Your task to perform on an android device: empty trash in the gmail app Image 0: 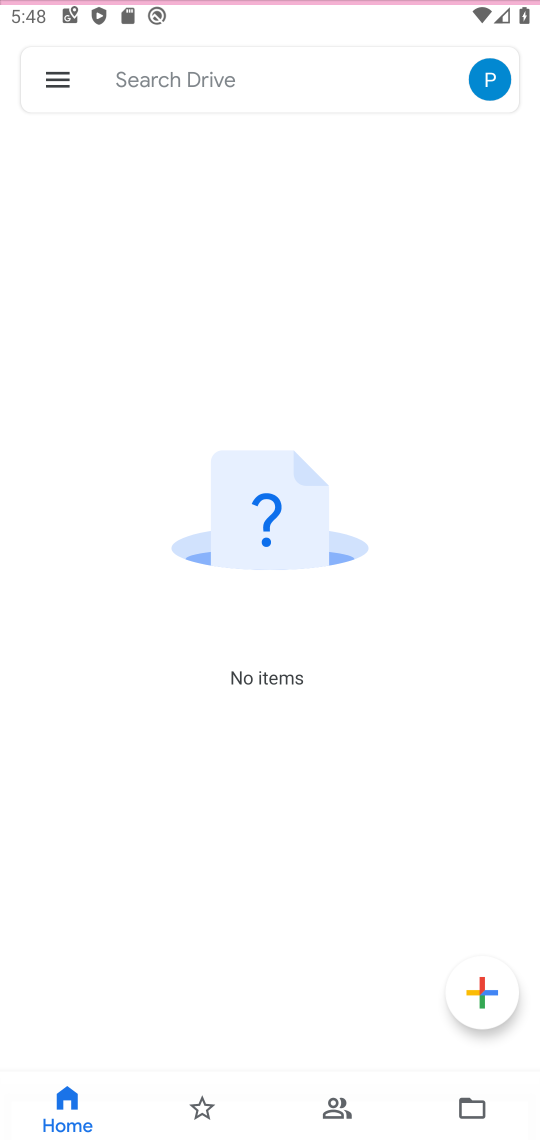
Step 0: press home button
Your task to perform on an android device: empty trash in the gmail app Image 1: 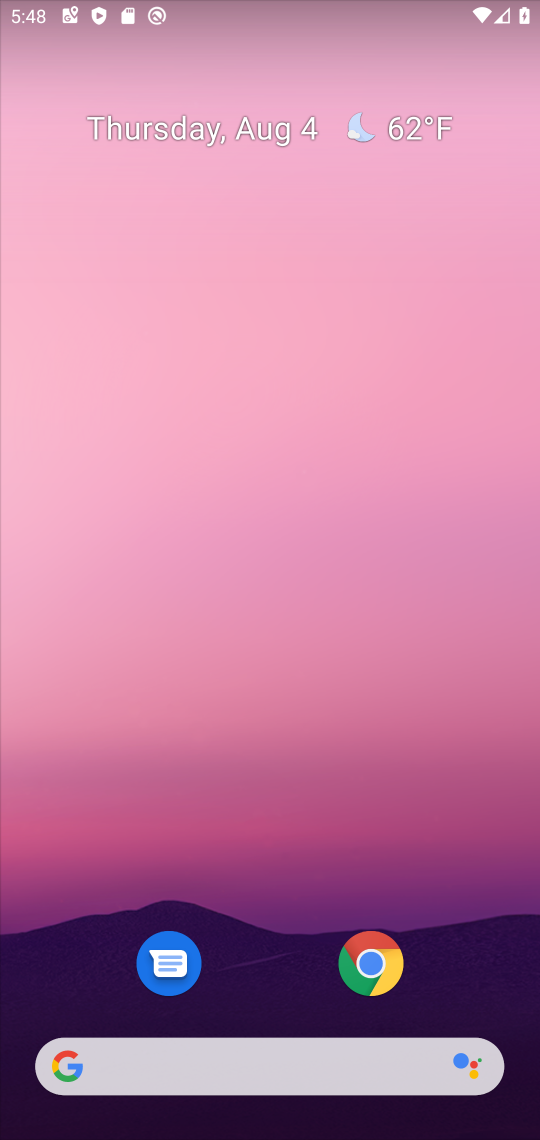
Step 1: drag from (326, 855) to (186, 81)
Your task to perform on an android device: empty trash in the gmail app Image 2: 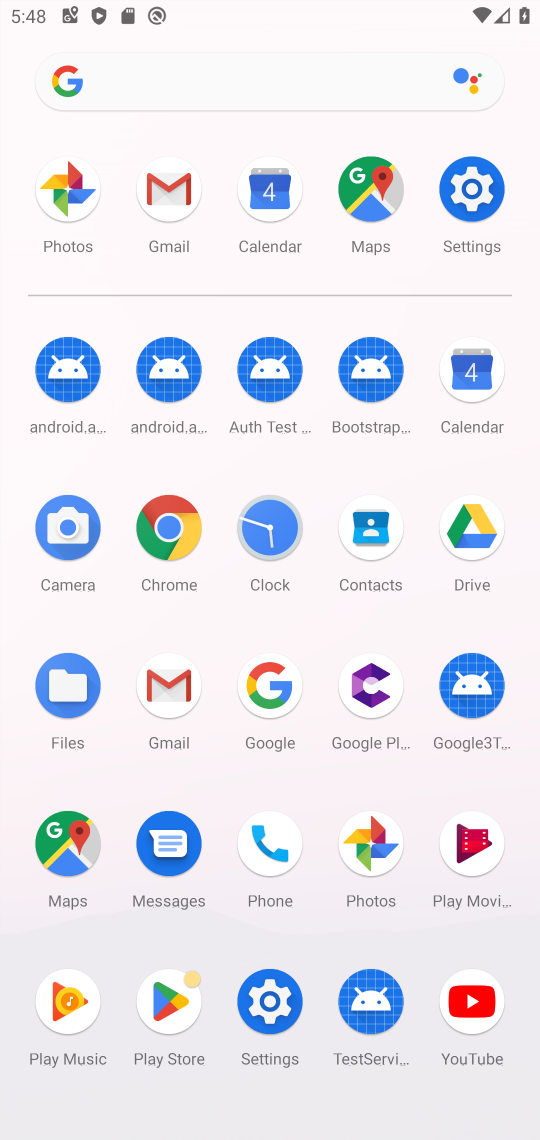
Step 2: click (173, 668)
Your task to perform on an android device: empty trash in the gmail app Image 3: 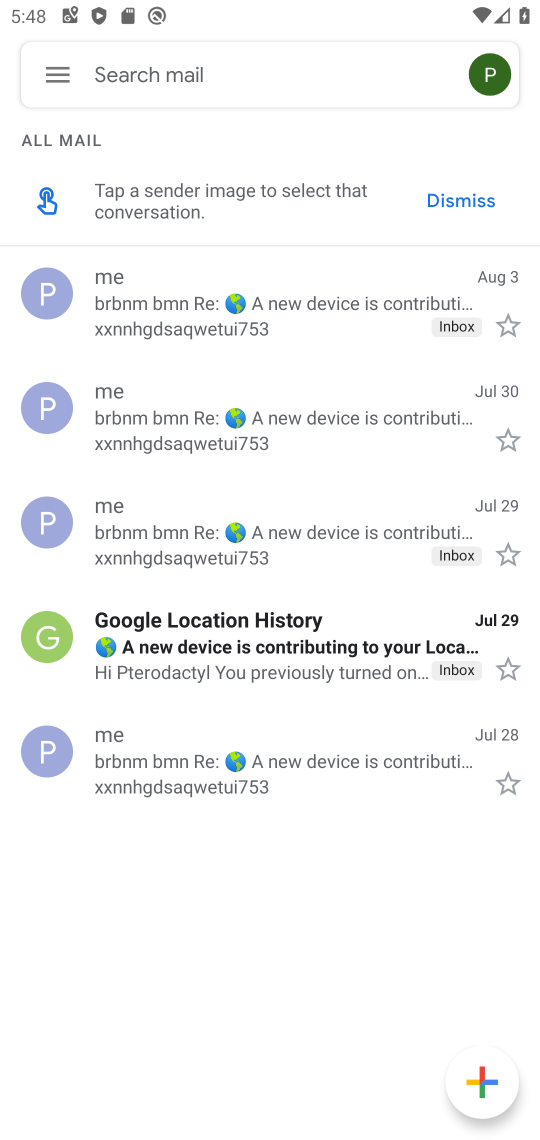
Step 3: click (46, 56)
Your task to perform on an android device: empty trash in the gmail app Image 4: 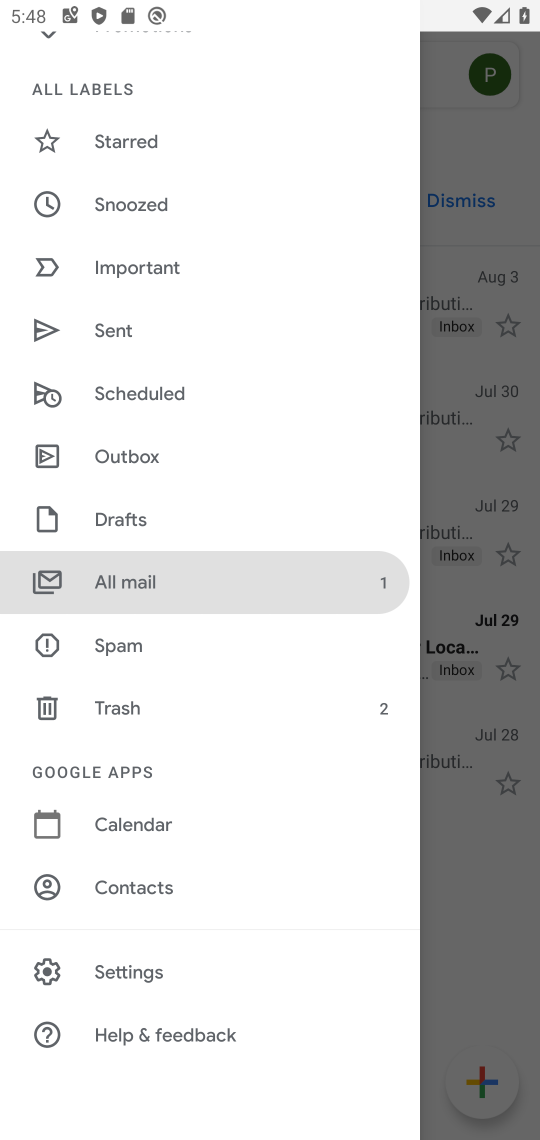
Step 4: click (153, 708)
Your task to perform on an android device: empty trash in the gmail app Image 5: 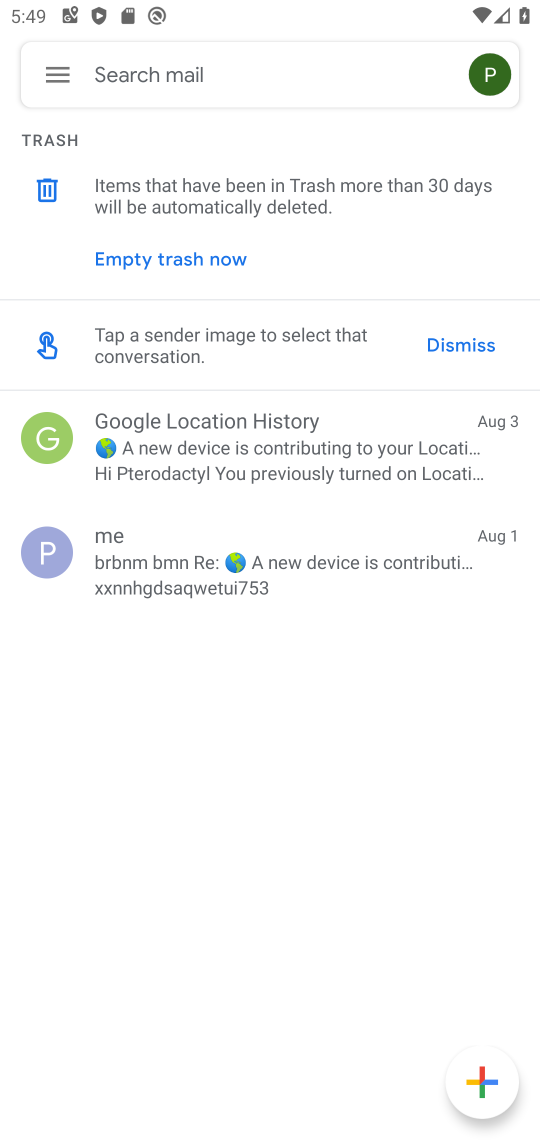
Step 5: click (180, 260)
Your task to perform on an android device: empty trash in the gmail app Image 6: 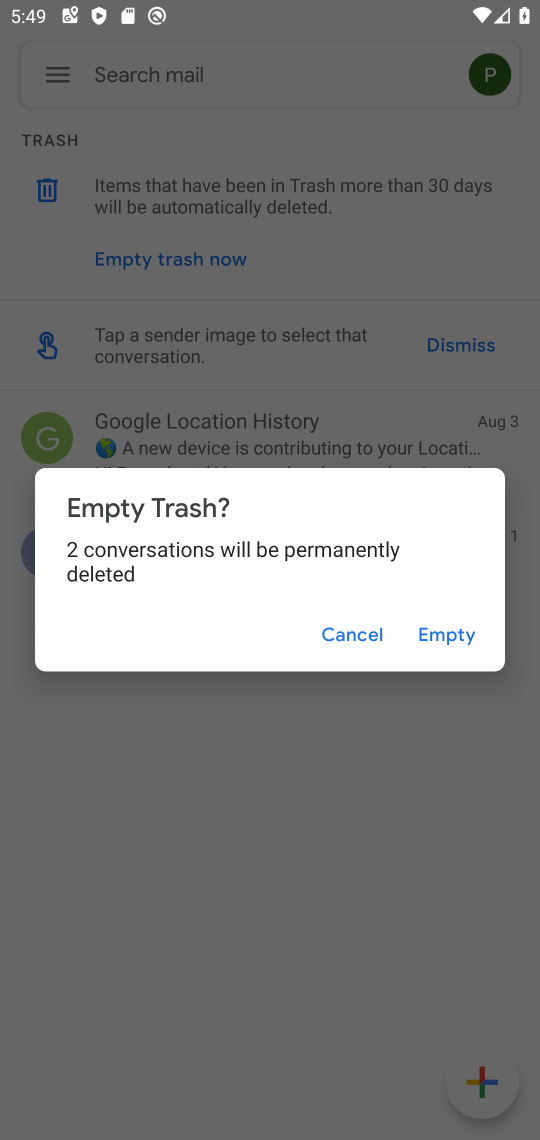
Step 6: click (441, 631)
Your task to perform on an android device: empty trash in the gmail app Image 7: 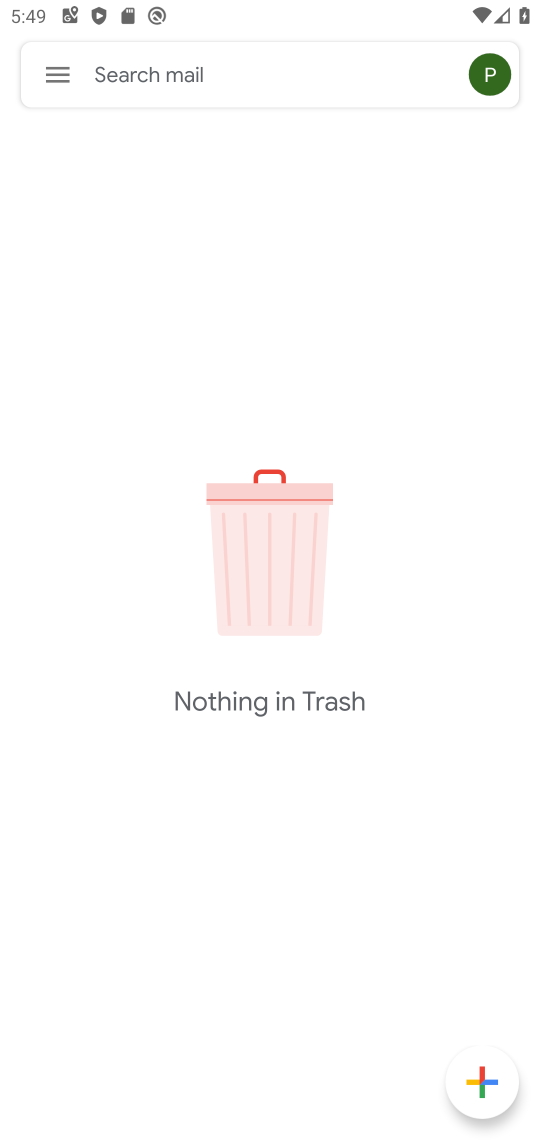
Step 7: task complete